Your task to perform on an android device: Go to Wikipedia Image 0: 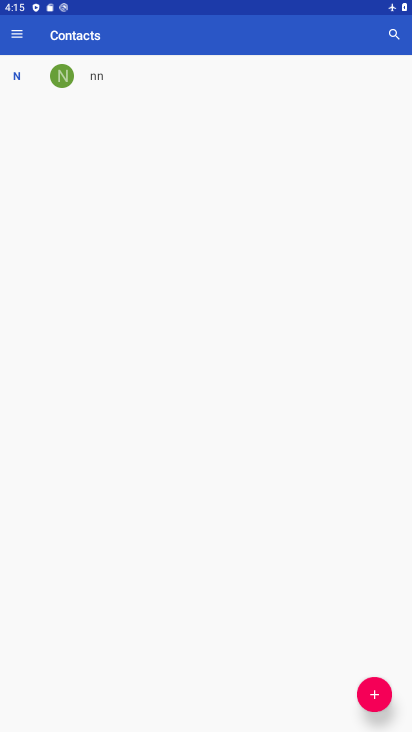
Step 0: press home button
Your task to perform on an android device: Go to Wikipedia Image 1: 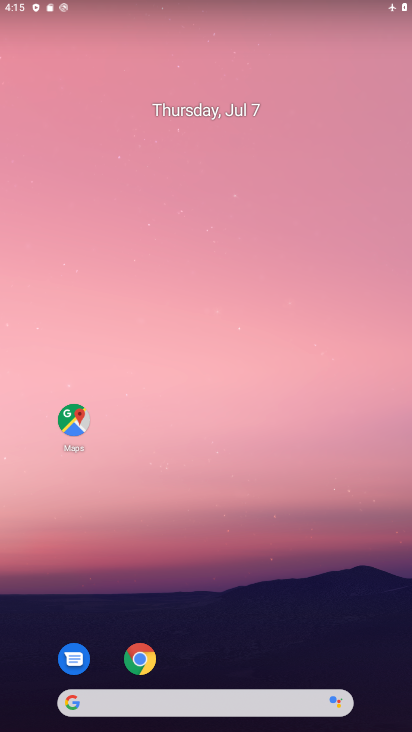
Step 1: drag from (301, 640) to (326, 107)
Your task to perform on an android device: Go to Wikipedia Image 2: 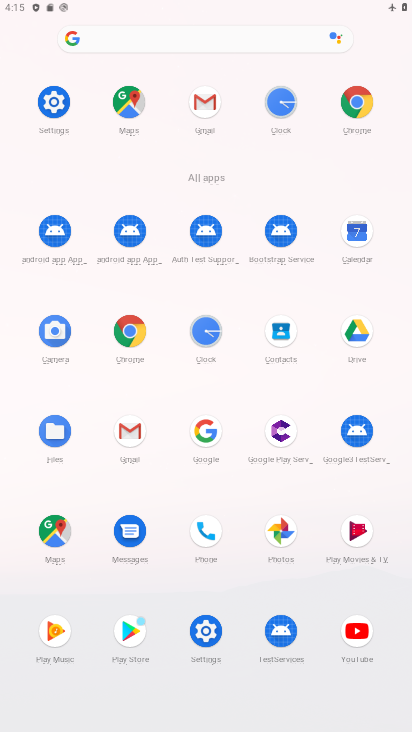
Step 2: click (132, 333)
Your task to perform on an android device: Go to Wikipedia Image 3: 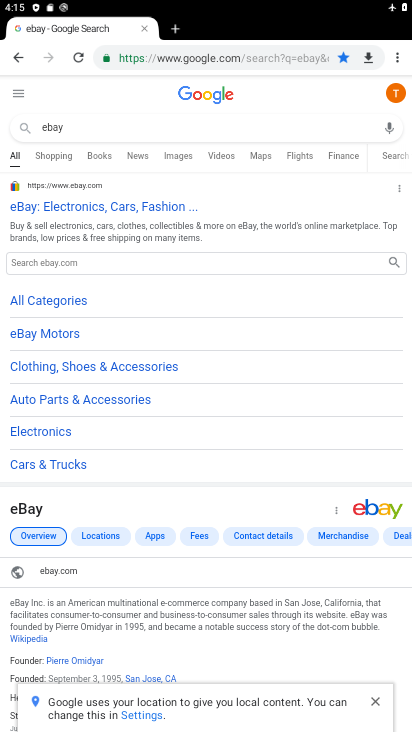
Step 3: click (259, 63)
Your task to perform on an android device: Go to Wikipedia Image 4: 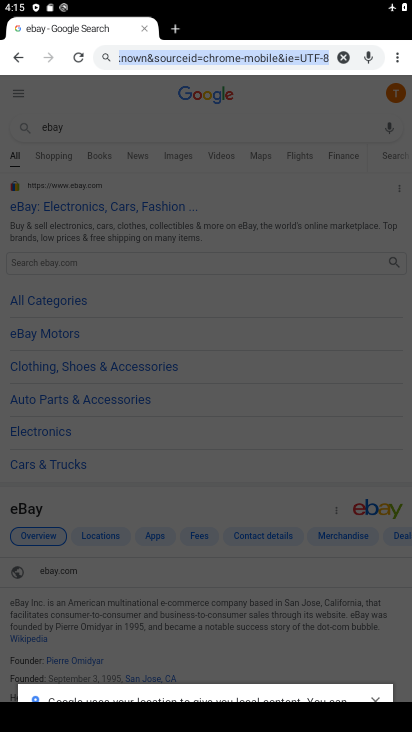
Step 4: type "wikipedia"
Your task to perform on an android device: Go to Wikipedia Image 5: 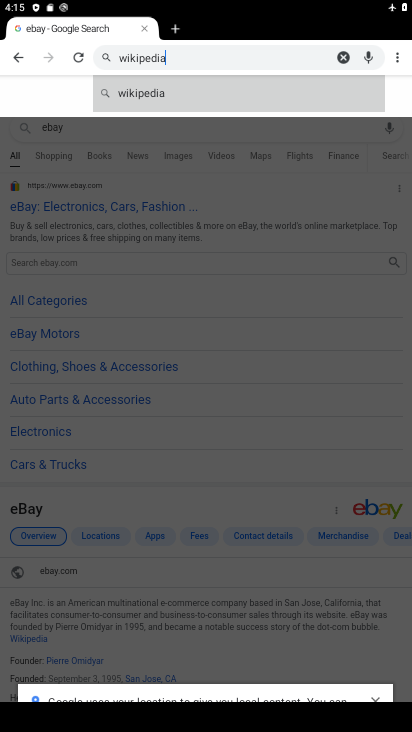
Step 5: click (182, 96)
Your task to perform on an android device: Go to Wikipedia Image 6: 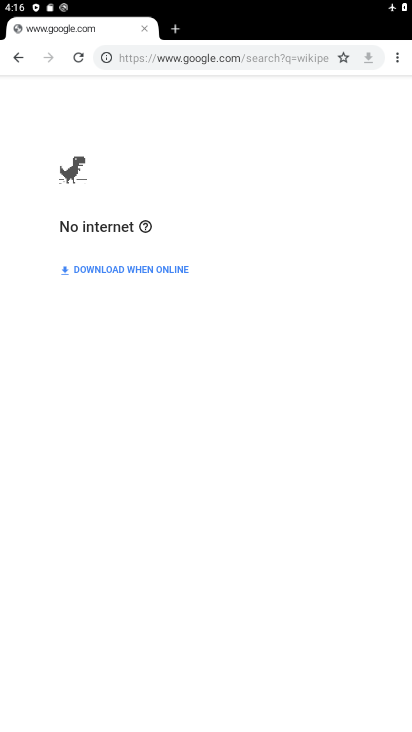
Step 6: task complete